Your task to perform on an android device: install app "Venmo" Image 0: 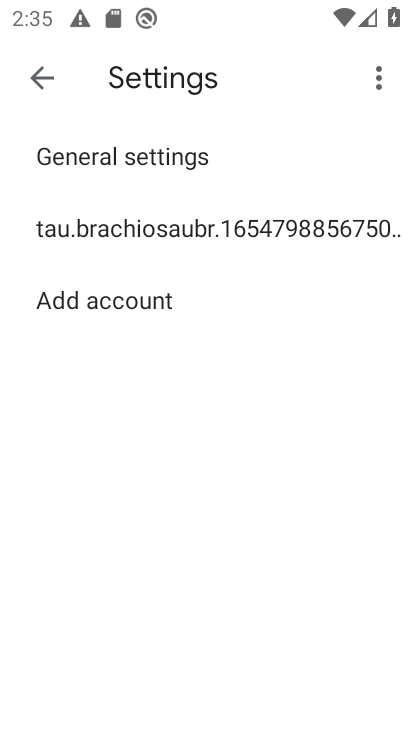
Step 0: press home button
Your task to perform on an android device: install app "Venmo" Image 1: 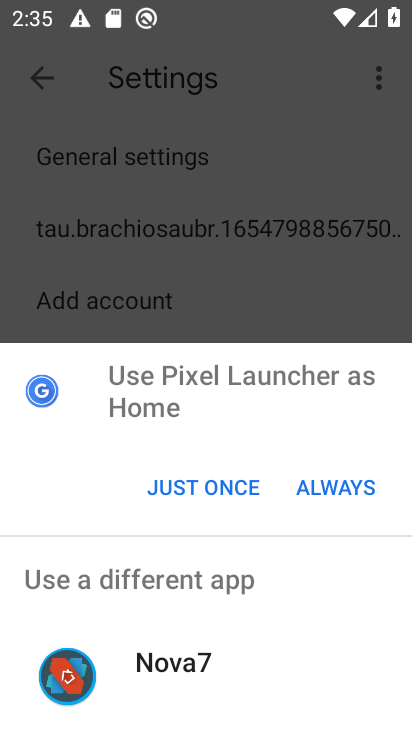
Step 1: click (193, 487)
Your task to perform on an android device: install app "Venmo" Image 2: 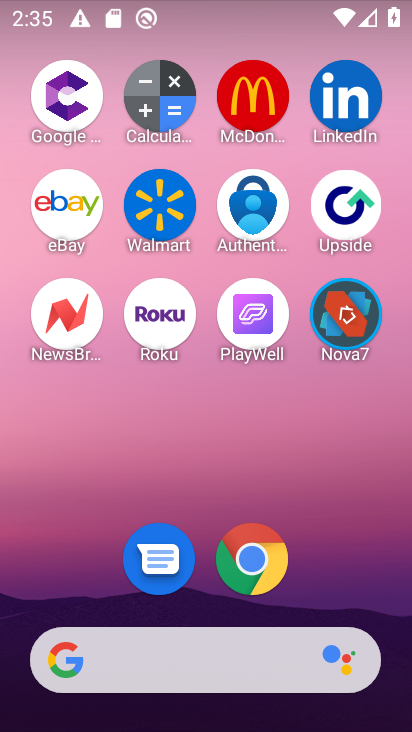
Step 2: drag from (142, 626) to (100, 225)
Your task to perform on an android device: install app "Venmo" Image 3: 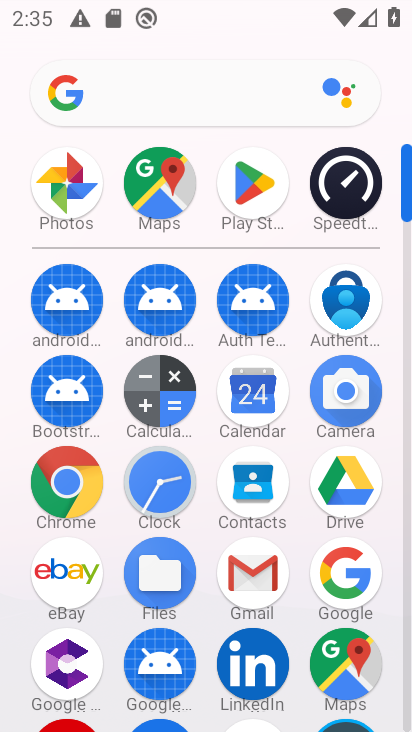
Step 3: click (233, 186)
Your task to perform on an android device: install app "Venmo" Image 4: 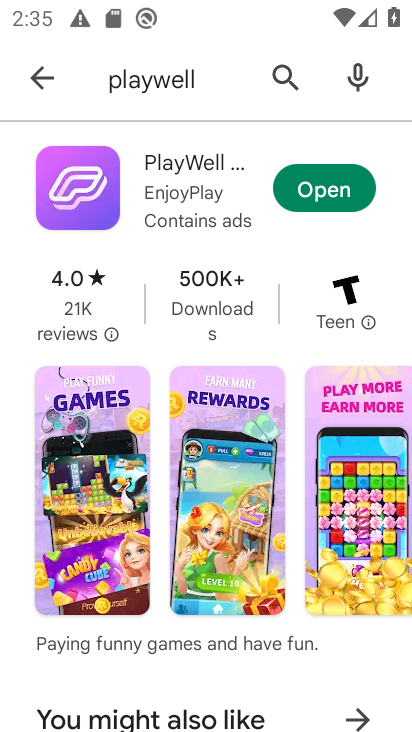
Step 4: click (279, 77)
Your task to perform on an android device: install app "Venmo" Image 5: 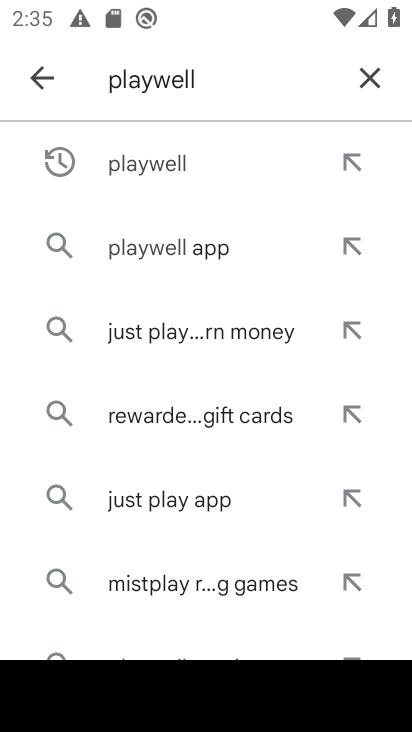
Step 5: click (377, 71)
Your task to perform on an android device: install app "Venmo" Image 6: 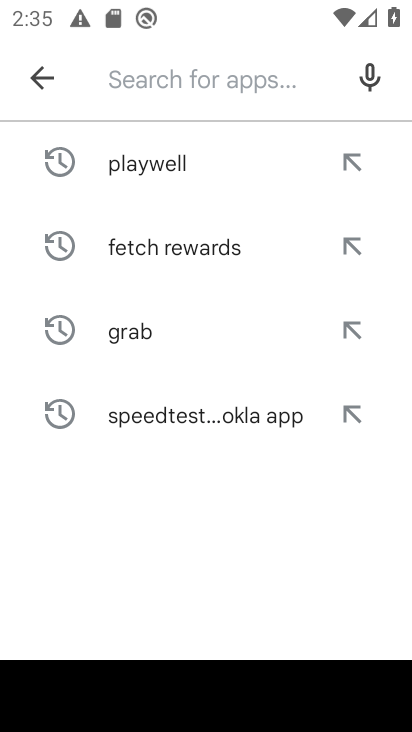
Step 6: type "Venmo"
Your task to perform on an android device: install app "Venmo" Image 7: 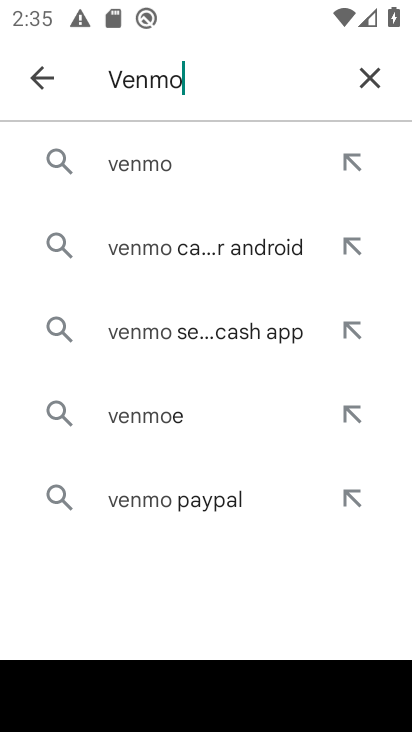
Step 7: click (150, 160)
Your task to perform on an android device: install app "Venmo" Image 8: 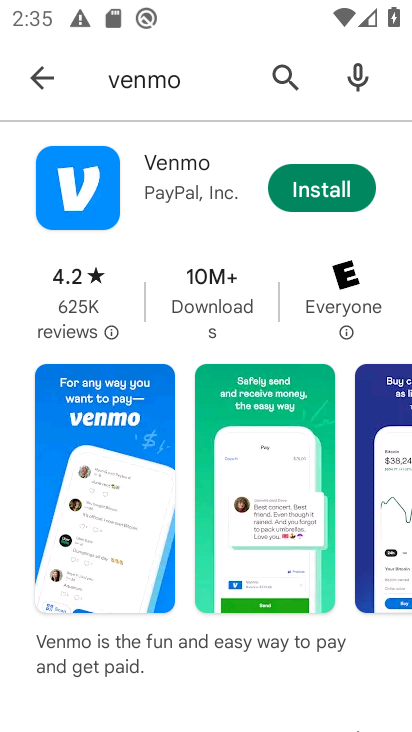
Step 8: click (294, 190)
Your task to perform on an android device: install app "Venmo" Image 9: 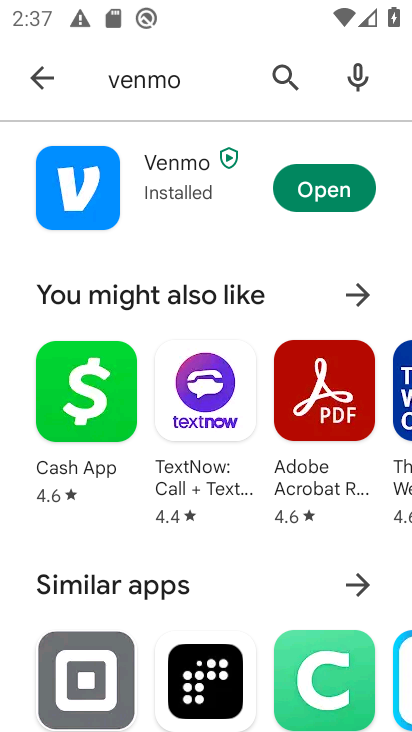
Step 9: click (339, 191)
Your task to perform on an android device: install app "Venmo" Image 10: 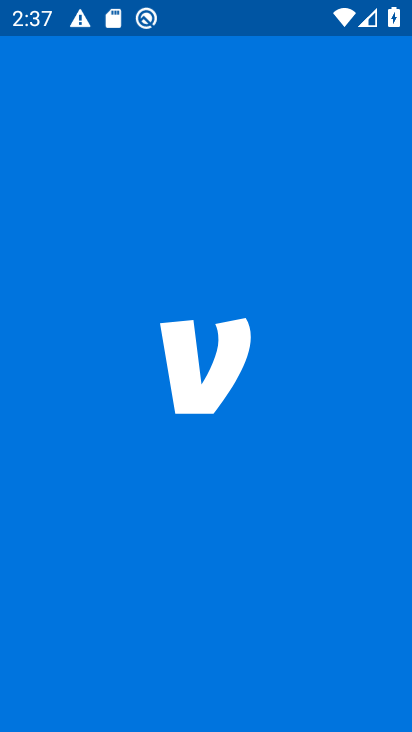
Step 10: task complete